Your task to perform on an android device: stop showing notifications on the lock screen Image 0: 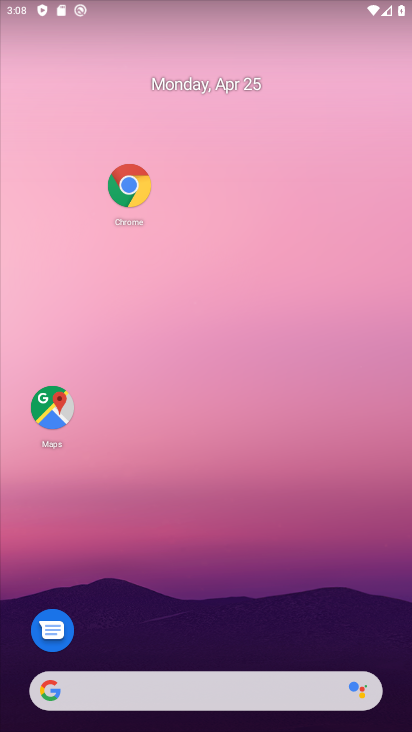
Step 0: drag from (124, 666) to (198, 278)
Your task to perform on an android device: stop showing notifications on the lock screen Image 1: 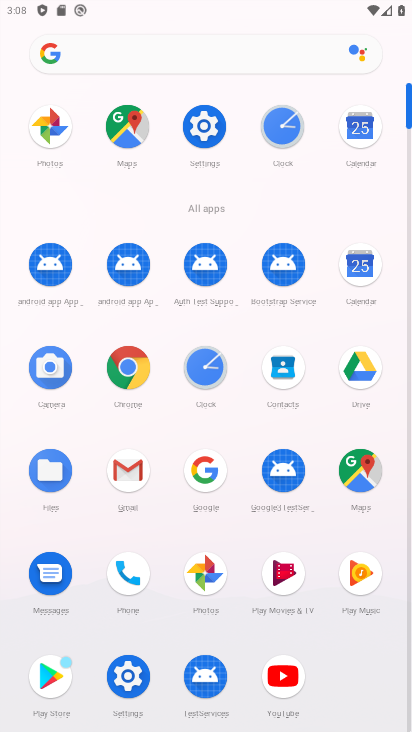
Step 1: click (203, 142)
Your task to perform on an android device: stop showing notifications on the lock screen Image 2: 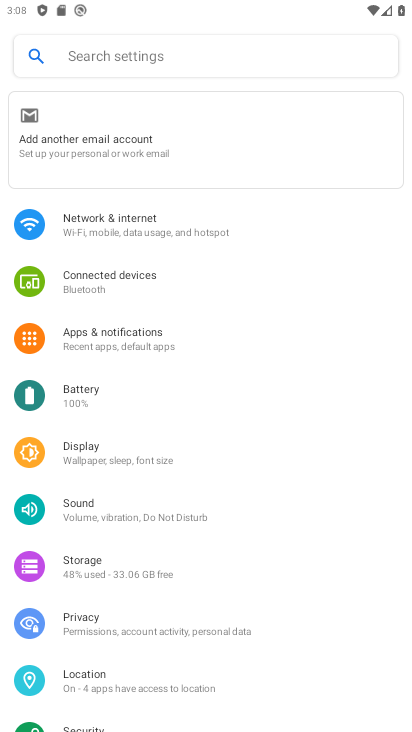
Step 2: click (114, 332)
Your task to perform on an android device: stop showing notifications on the lock screen Image 3: 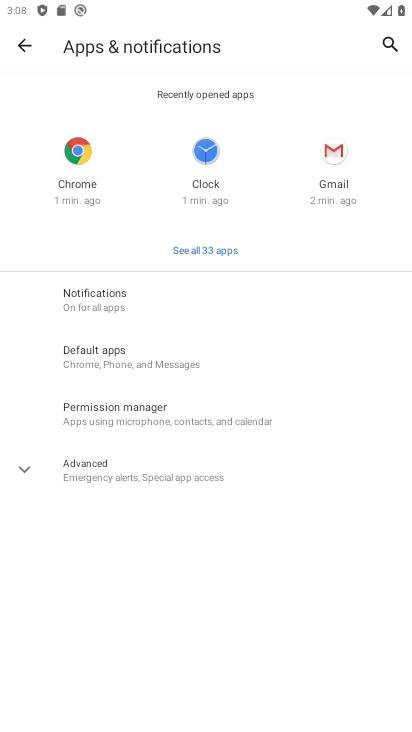
Step 3: click (122, 293)
Your task to perform on an android device: stop showing notifications on the lock screen Image 4: 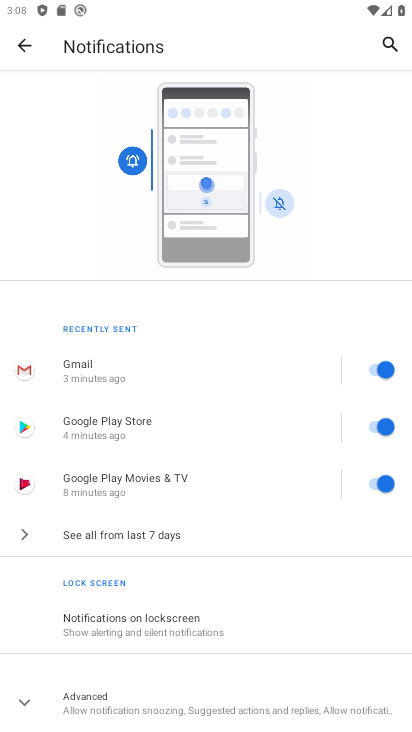
Step 4: click (198, 622)
Your task to perform on an android device: stop showing notifications on the lock screen Image 5: 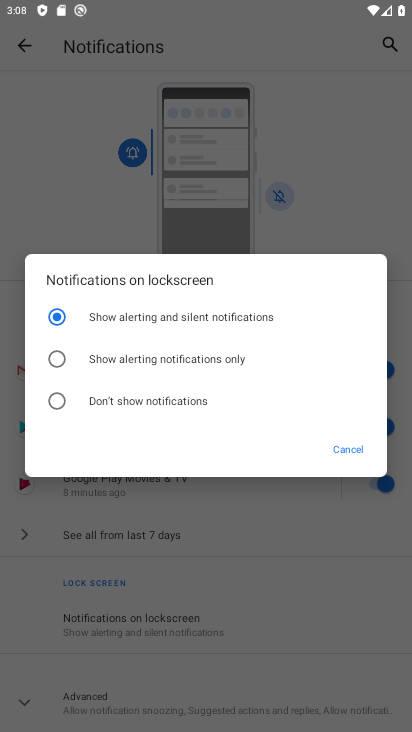
Step 5: click (136, 403)
Your task to perform on an android device: stop showing notifications on the lock screen Image 6: 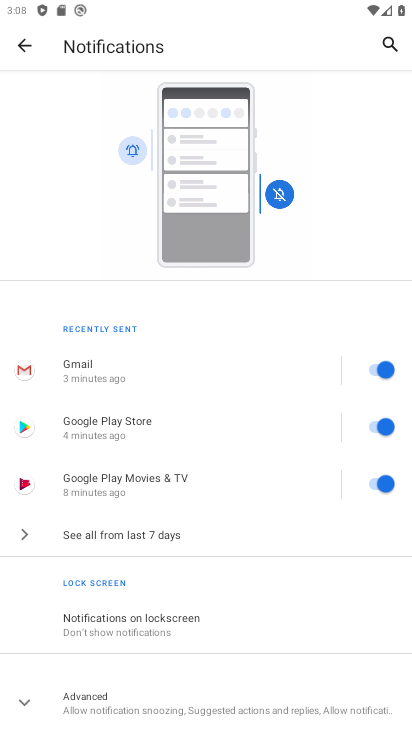
Step 6: task complete